Your task to perform on an android device: Open accessibility settings Image 0: 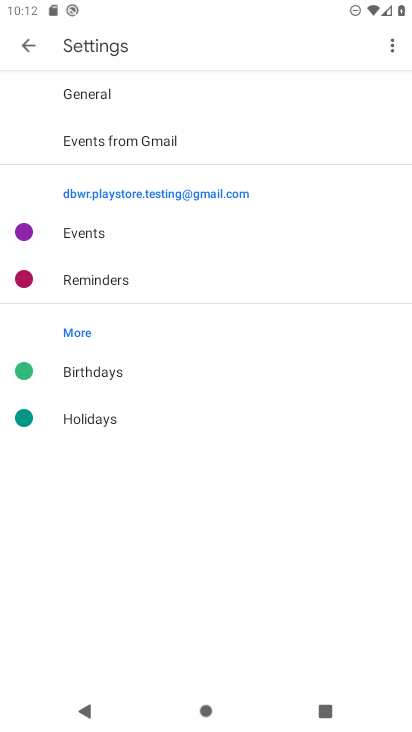
Step 0: press home button
Your task to perform on an android device: Open accessibility settings Image 1: 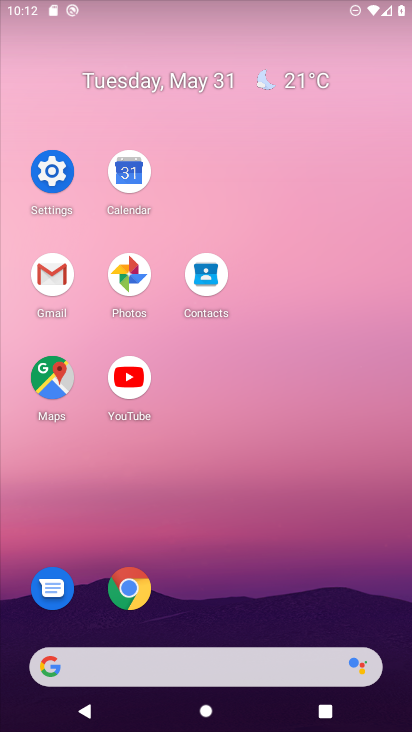
Step 1: click (56, 180)
Your task to perform on an android device: Open accessibility settings Image 2: 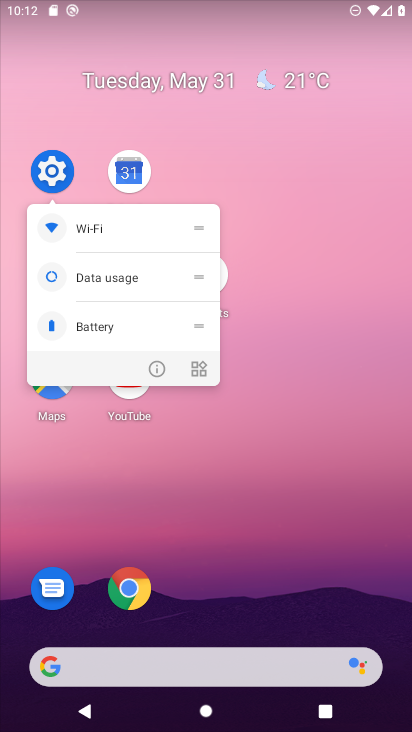
Step 2: click (70, 171)
Your task to perform on an android device: Open accessibility settings Image 3: 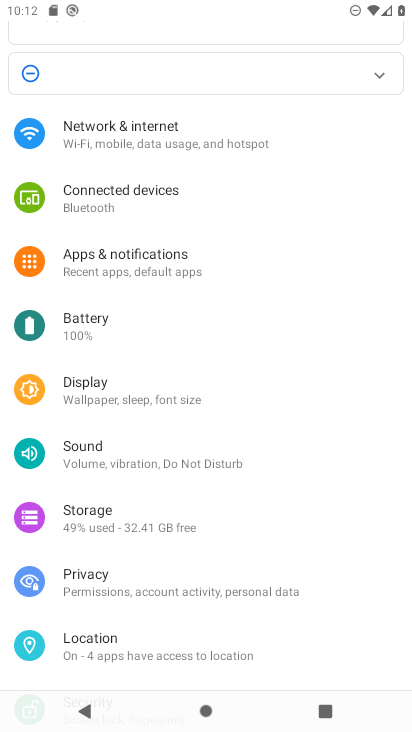
Step 3: drag from (261, 628) to (259, 253)
Your task to perform on an android device: Open accessibility settings Image 4: 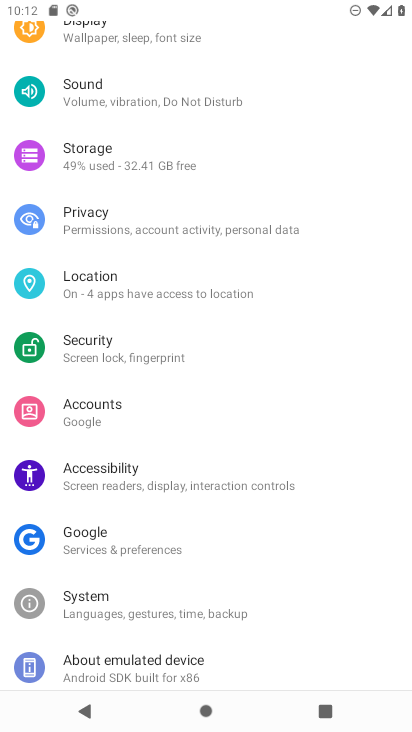
Step 4: click (199, 483)
Your task to perform on an android device: Open accessibility settings Image 5: 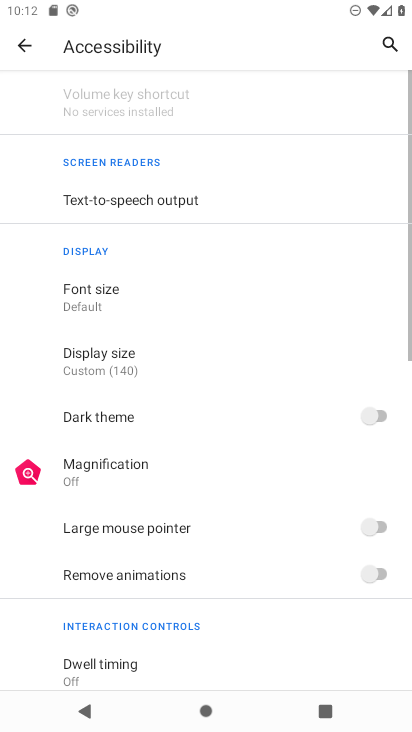
Step 5: task complete